Your task to perform on an android device: turn on data saver in the chrome app Image 0: 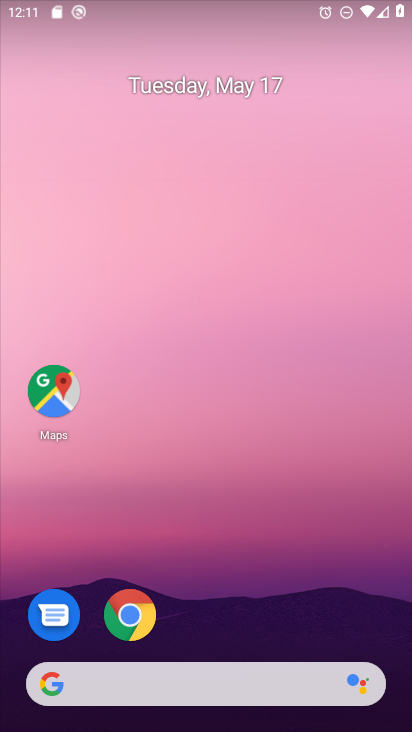
Step 0: click (126, 617)
Your task to perform on an android device: turn on data saver in the chrome app Image 1: 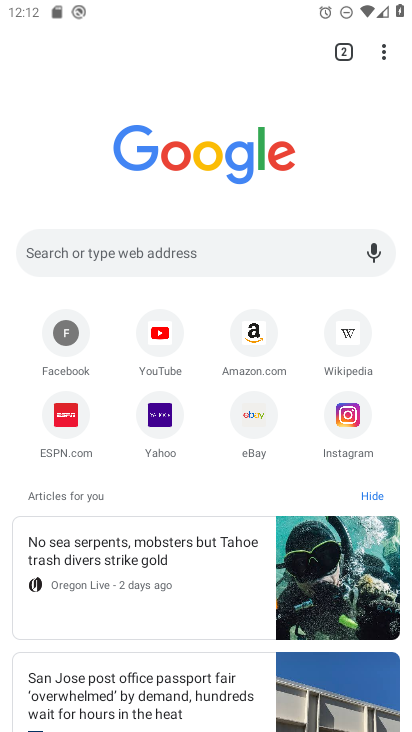
Step 1: click (386, 54)
Your task to perform on an android device: turn on data saver in the chrome app Image 2: 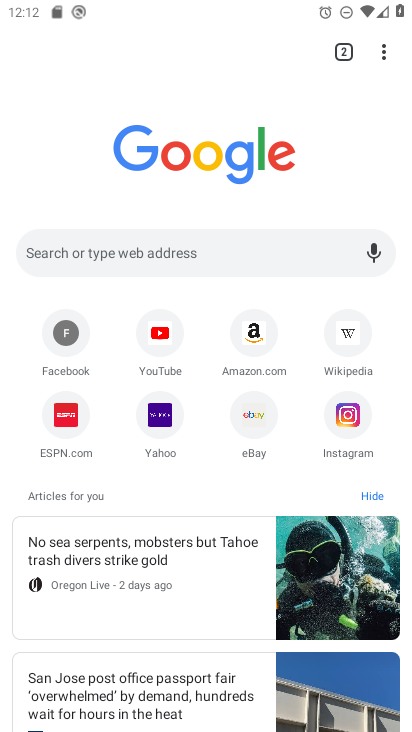
Step 2: click (382, 52)
Your task to perform on an android device: turn on data saver in the chrome app Image 3: 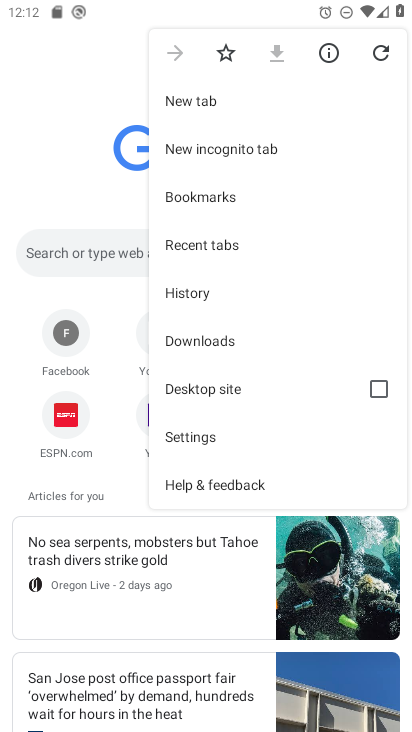
Step 3: click (201, 437)
Your task to perform on an android device: turn on data saver in the chrome app Image 4: 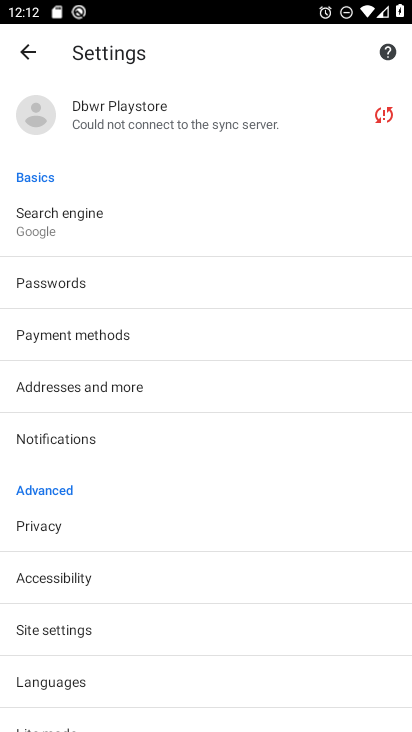
Step 4: drag from (85, 697) to (138, 442)
Your task to perform on an android device: turn on data saver in the chrome app Image 5: 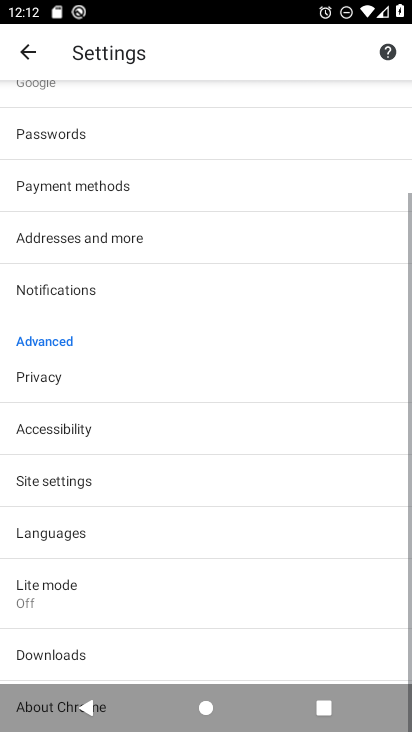
Step 5: click (42, 577)
Your task to perform on an android device: turn on data saver in the chrome app Image 6: 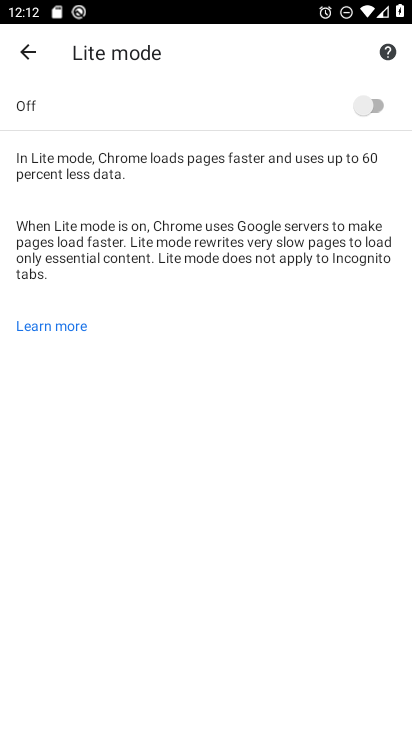
Step 6: click (376, 109)
Your task to perform on an android device: turn on data saver in the chrome app Image 7: 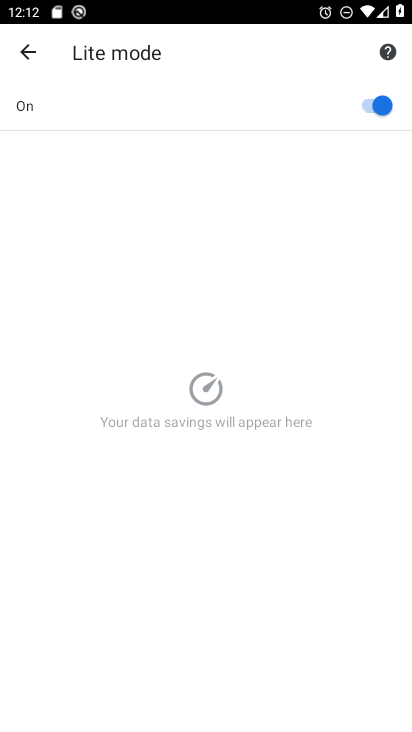
Step 7: task complete